Your task to perform on an android device: turn off translation in the chrome app Image 0: 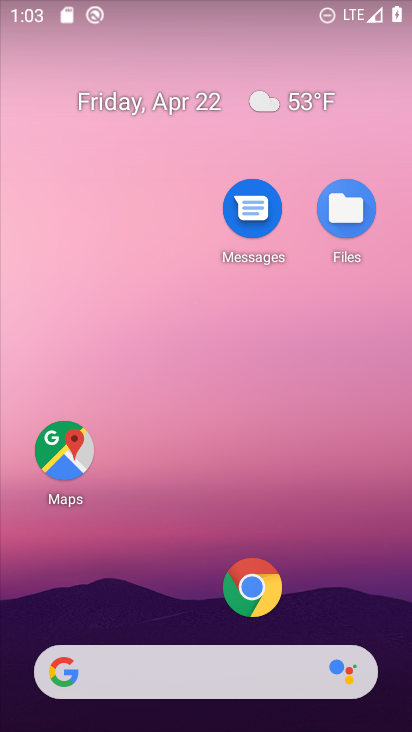
Step 0: click (246, 585)
Your task to perform on an android device: turn off translation in the chrome app Image 1: 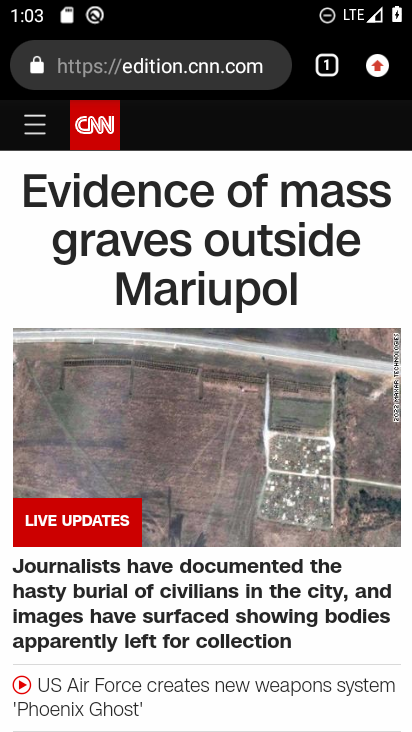
Step 1: click (377, 66)
Your task to perform on an android device: turn off translation in the chrome app Image 2: 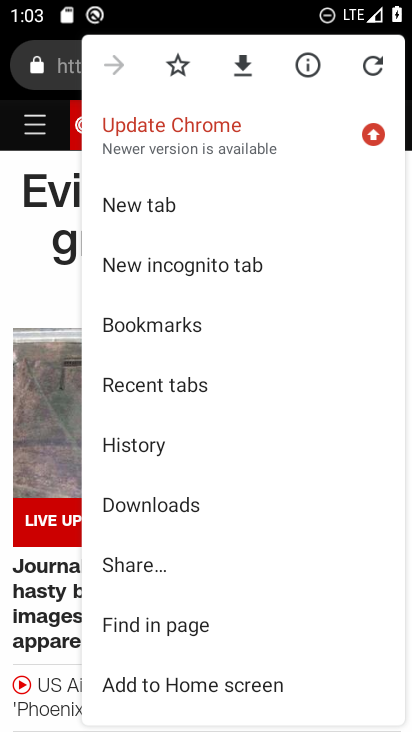
Step 2: drag from (206, 614) to (277, 194)
Your task to perform on an android device: turn off translation in the chrome app Image 3: 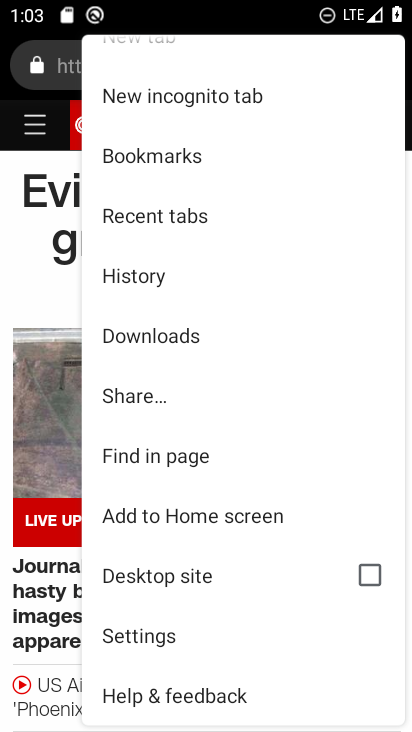
Step 3: click (139, 626)
Your task to perform on an android device: turn off translation in the chrome app Image 4: 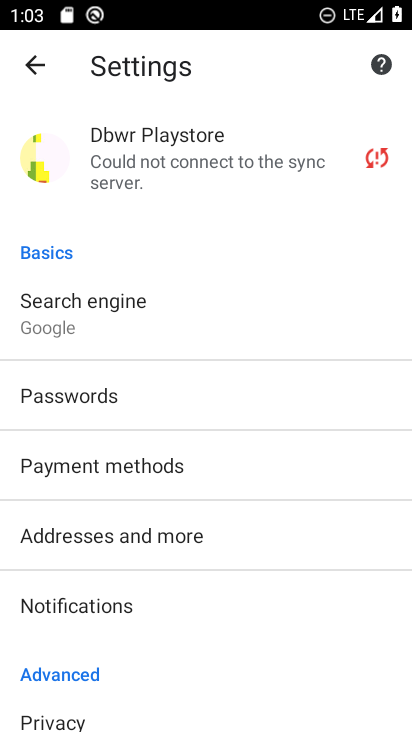
Step 4: drag from (144, 677) to (178, 200)
Your task to perform on an android device: turn off translation in the chrome app Image 5: 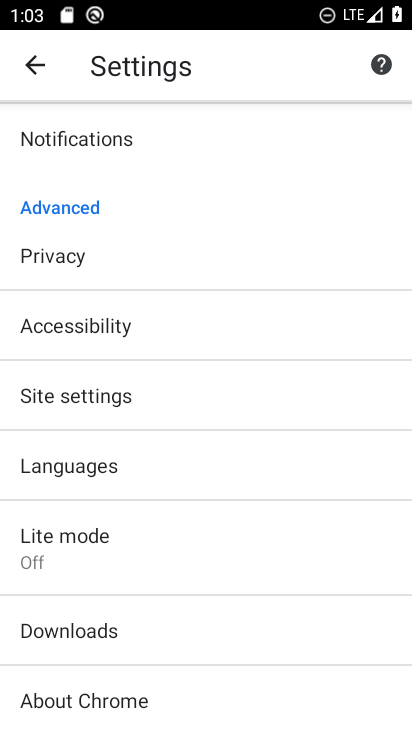
Step 5: click (94, 480)
Your task to perform on an android device: turn off translation in the chrome app Image 6: 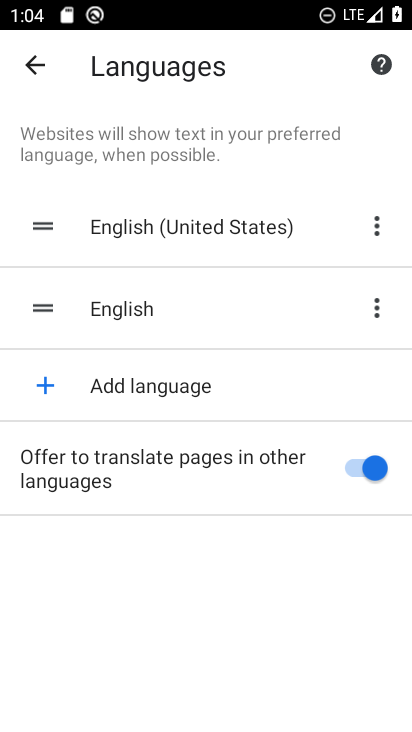
Step 6: click (352, 469)
Your task to perform on an android device: turn off translation in the chrome app Image 7: 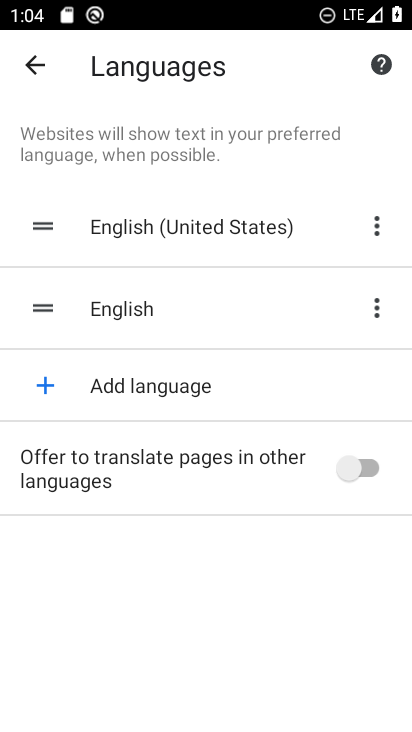
Step 7: task complete